Your task to perform on an android device: toggle priority inbox in the gmail app Image 0: 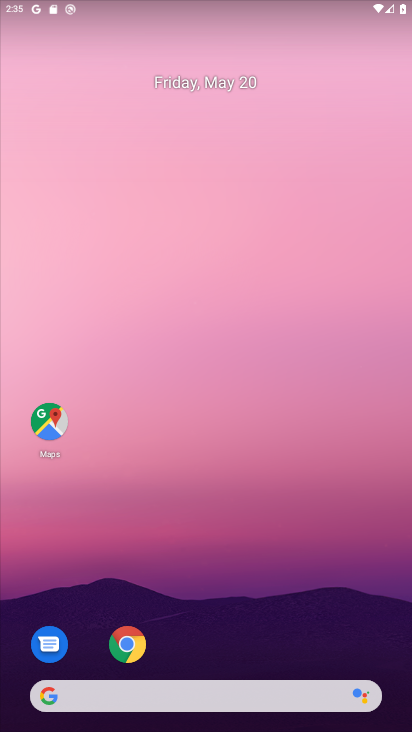
Step 0: drag from (177, 579) to (190, 207)
Your task to perform on an android device: toggle priority inbox in the gmail app Image 1: 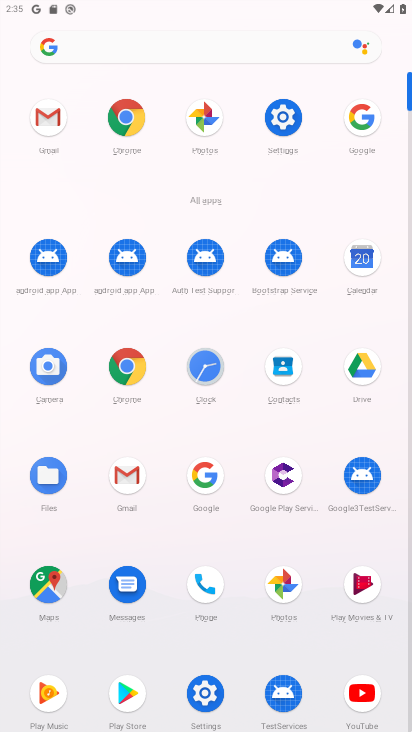
Step 1: click (125, 477)
Your task to perform on an android device: toggle priority inbox in the gmail app Image 2: 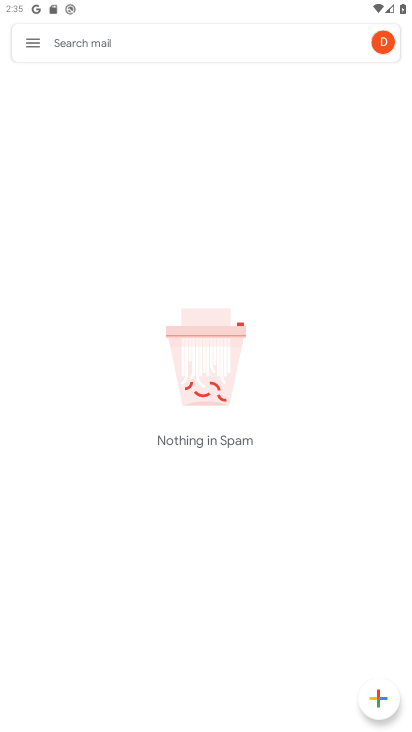
Step 2: click (37, 46)
Your task to perform on an android device: toggle priority inbox in the gmail app Image 3: 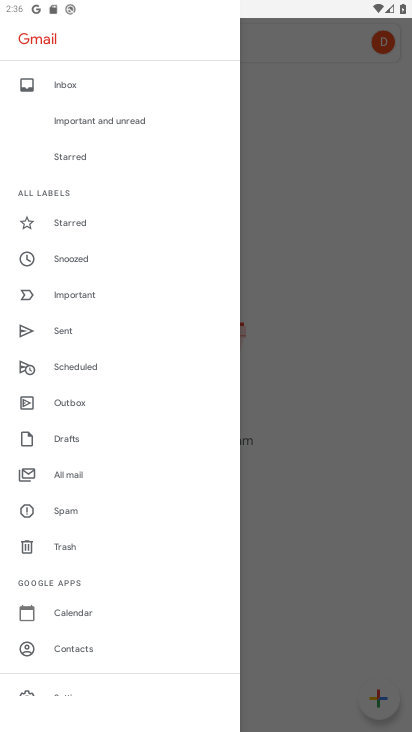
Step 3: drag from (73, 619) to (73, 486)
Your task to perform on an android device: toggle priority inbox in the gmail app Image 4: 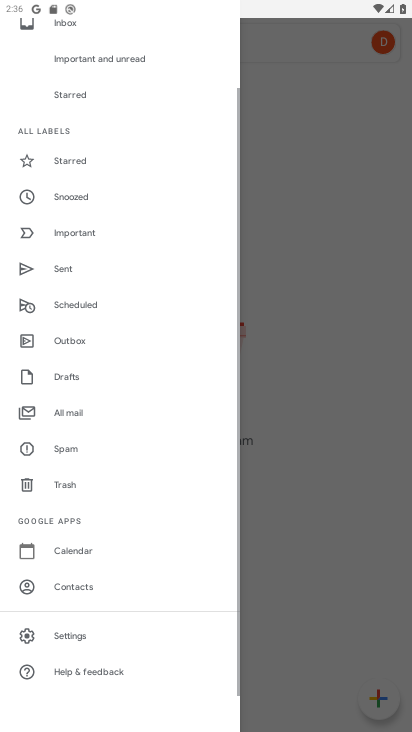
Step 4: click (80, 635)
Your task to perform on an android device: toggle priority inbox in the gmail app Image 5: 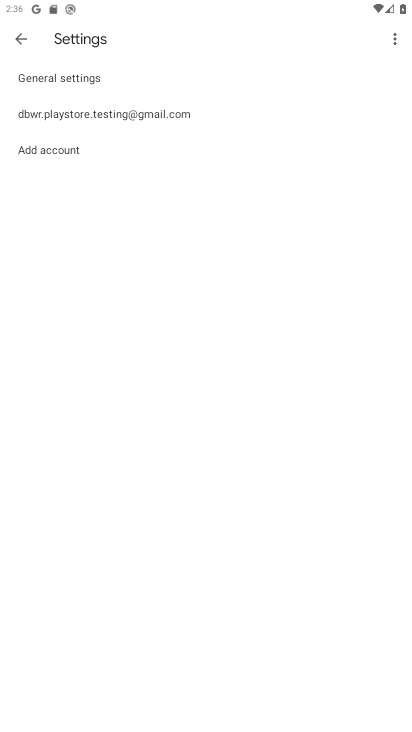
Step 5: click (40, 115)
Your task to perform on an android device: toggle priority inbox in the gmail app Image 6: 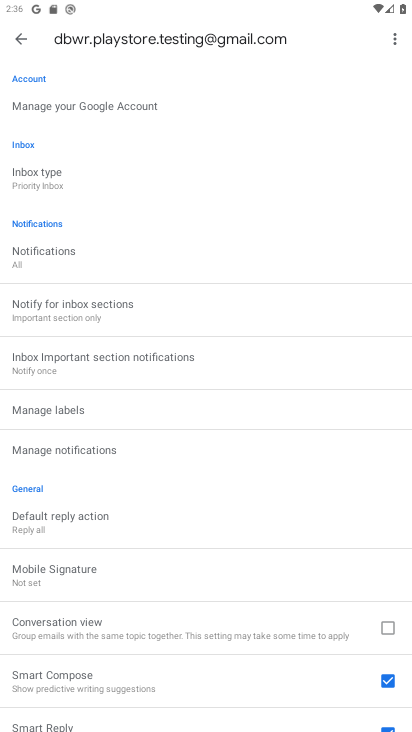
Step 6: click (42, 182)
Your task to perform on an android device: toggle priority inbox in the gmail app Image 7: 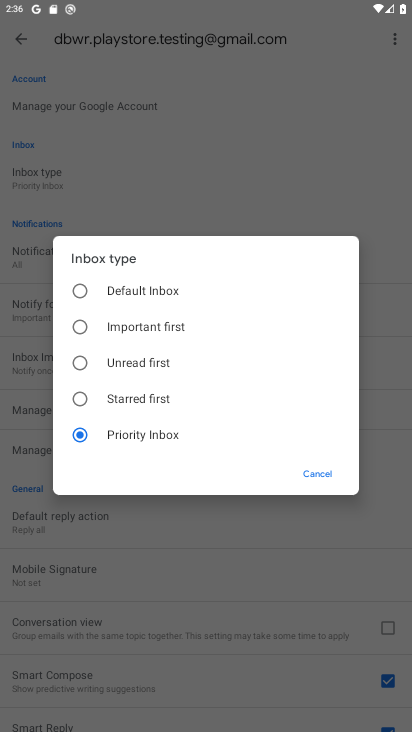
Step 7: task complete